Your task to perform on an android device: delete a single message in the gmail app Image 0: 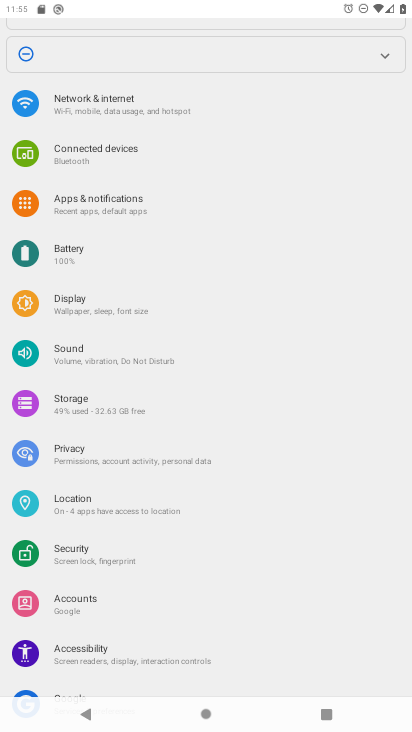
Step 0: press home button
Your task to perform on an android device: delete a single message in the gmail app Image 1: 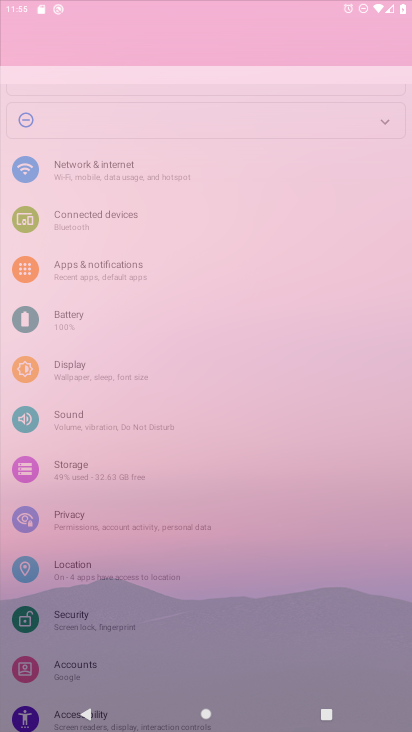
Step 1: drag from (362, 667) to (262, 41)
Your task to perform on an android device: delete a single message in the gmail app Image 2: 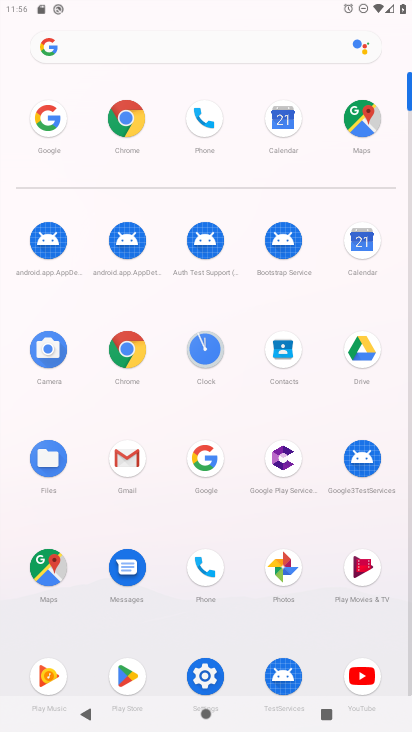
Step 2: click (131, 465)
Your task to perform on an android device: delete a single message in the gmail app Image 3: 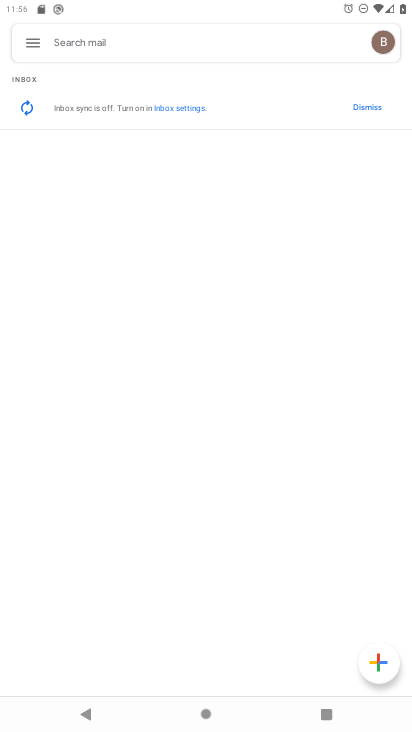
Step 3: task complete